Your task to perform on an android device: empty trash in the gmail app Image 0: 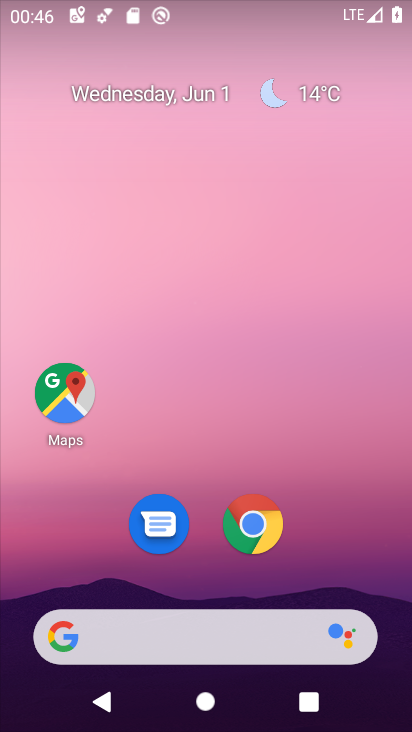
Step 0: drag from (322, 525) to (325, 38)
Your task to perform on an android device: empty trash in the gmail app Image 1: 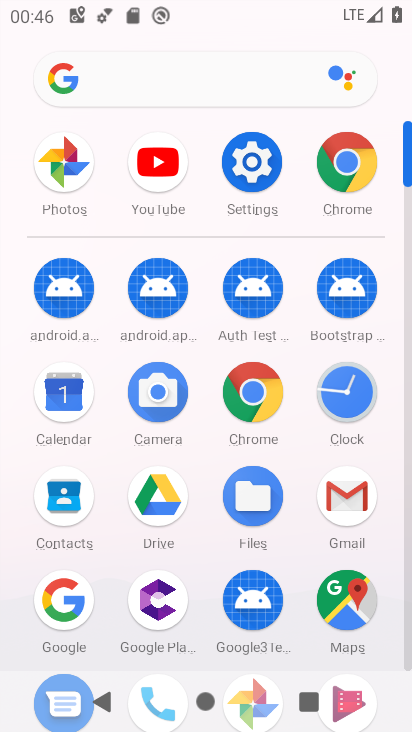
Step 1: click (358, 499)
Your task to perform on an android device: empty trash in the gmail app Image 2: 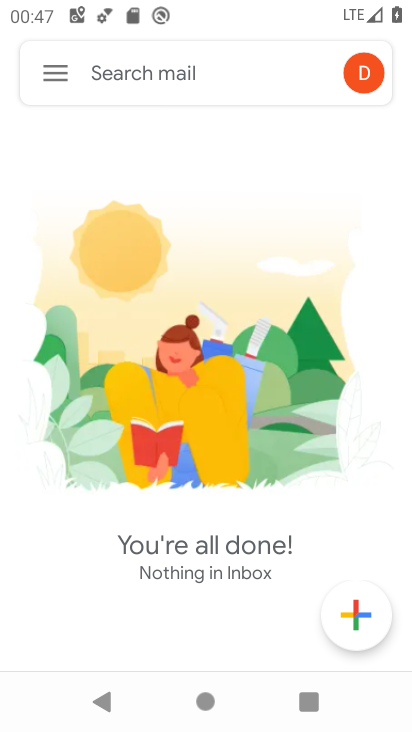
Step 2: click (59, 64)
Your task to perform on an android device: empty trash in the gmail app Image 3: 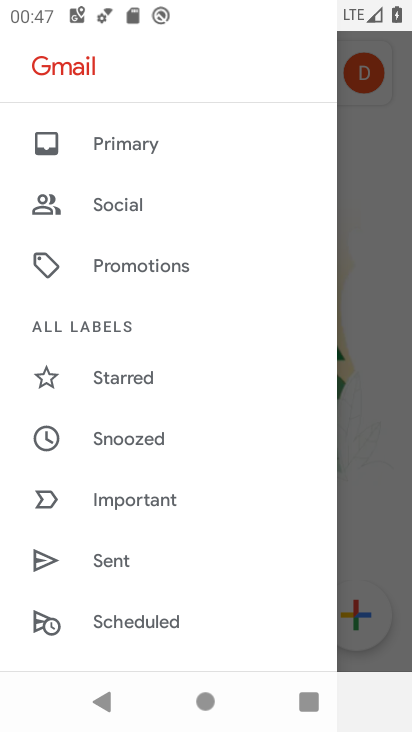
Step 3: drag from (159, 541) to (207, 65)
Your task to perform on an android device: empty trash in the gmail app Image 4: 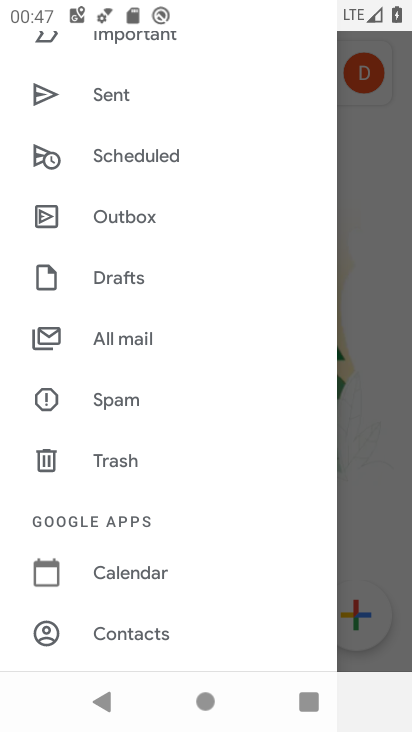
Step 4: click (146, 458)
Your task to perform on an android device: empty trash in the gmail app Image 5: 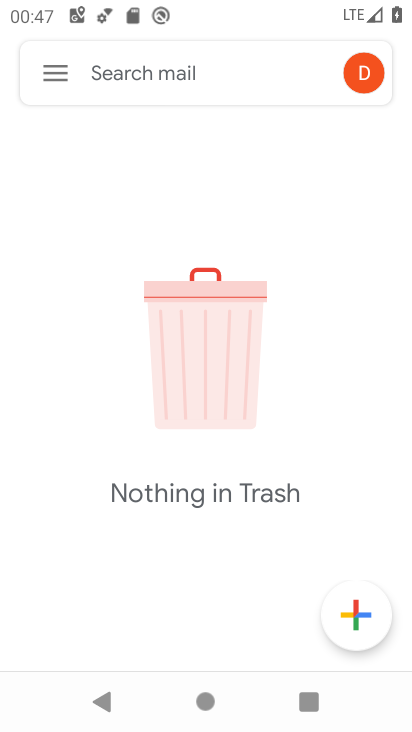
Step 5: task complete